Your task to perform on an android device: Go to battery settings Image 0: 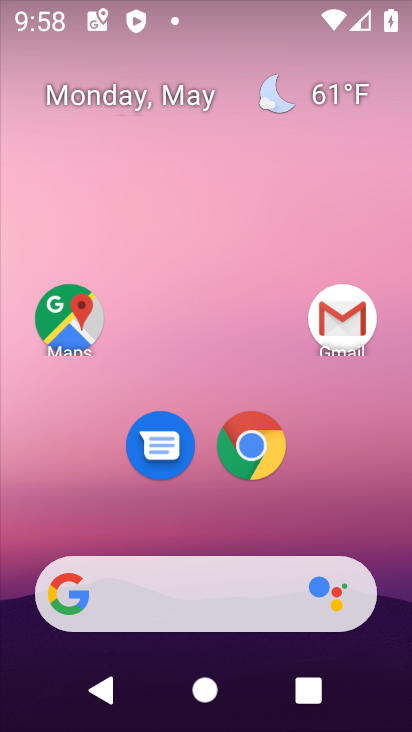
Step 0: drag from (392, 535) to (378, 185)
Your task to perform on an android device: Go to battery settings Image 1: 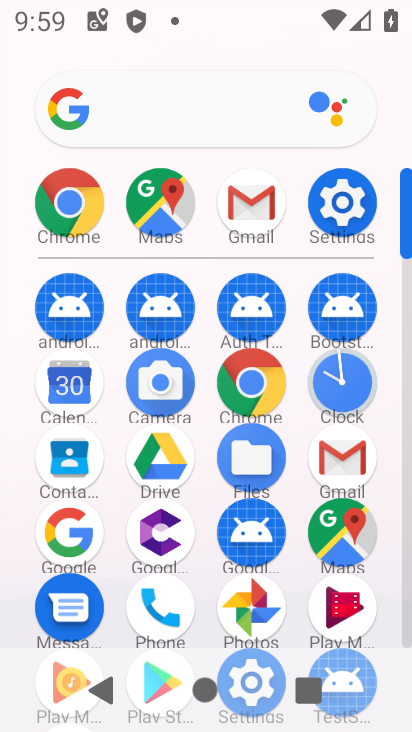
Step 1: click (334, 223)
Your task to perform on an android device: Go to battery settings Image 2: 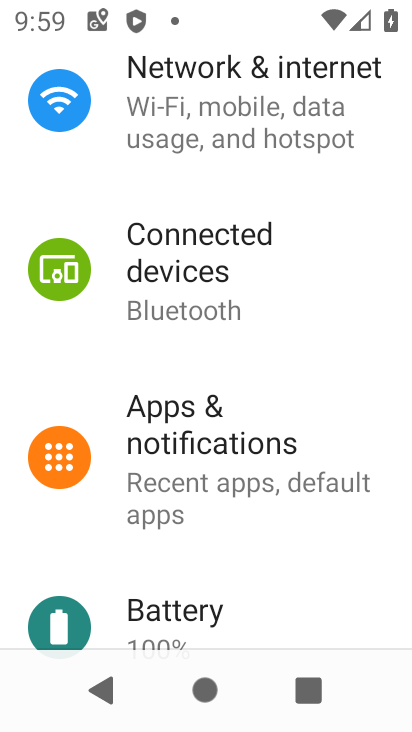
Step 2: drag from (350, 192) to (349, 331)
Your task to perform on an android device: Go to battery settings Image 3: 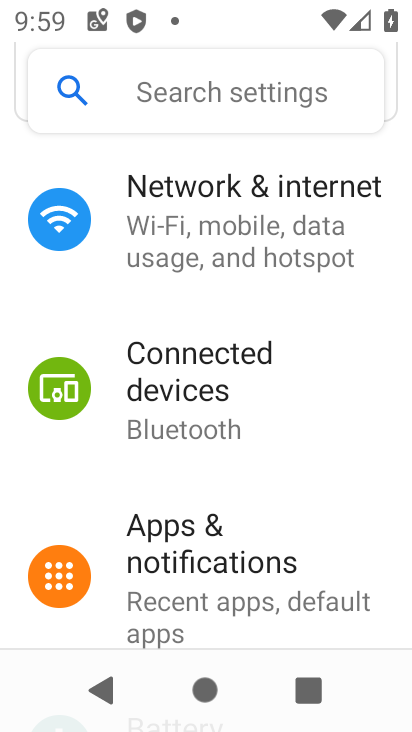
Step 3: drag from (370, 479) to (374, 343)
Your task to perform on an android device: Go to battery settings Image 4: 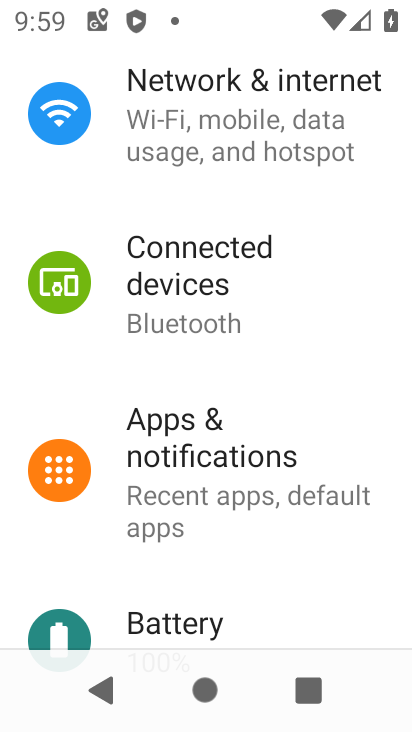
Step 4: drag from (363, 548) to (371, 410)
Your task to perform on an android device: Go to battery settings Image 5: 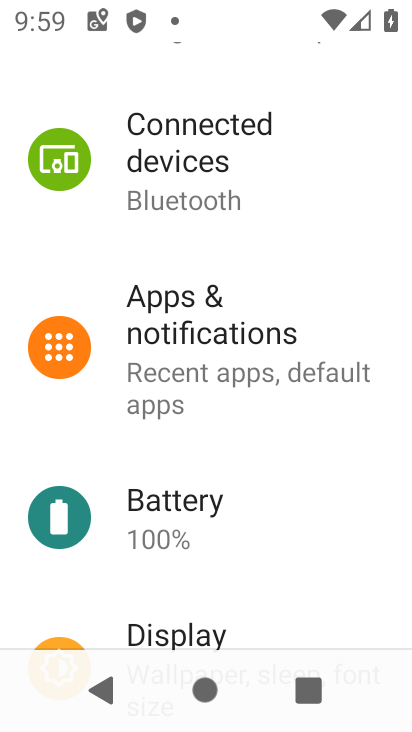
Step 5: drag from (367, 555) to (362, 418)
Your task to perform on an android device: Go to battery settings Image 6: 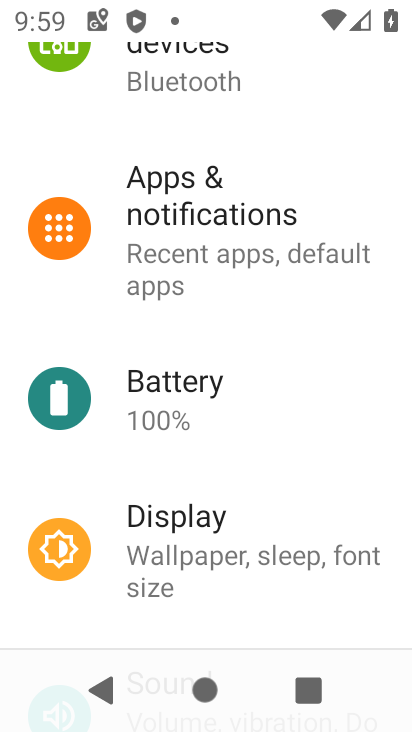
Step 6: drag from (344, 585) to (342, 338)
Your task to perform on an android device: Go to battery settings Image 7: 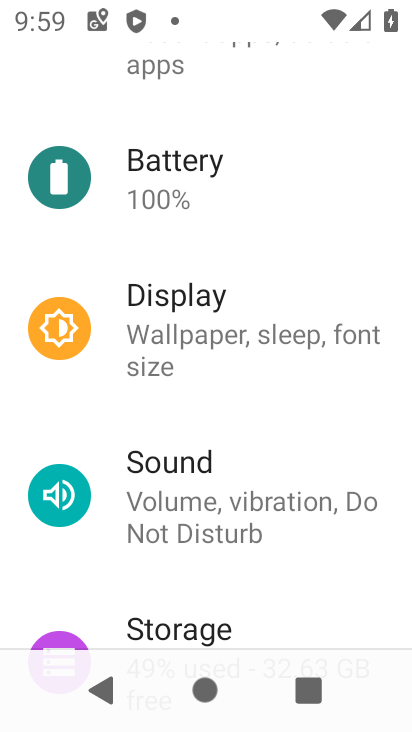
Step 7: drag from (346, 564) to (348, 433)
Your task to perform on an android device: Go to battery settings Image 8: 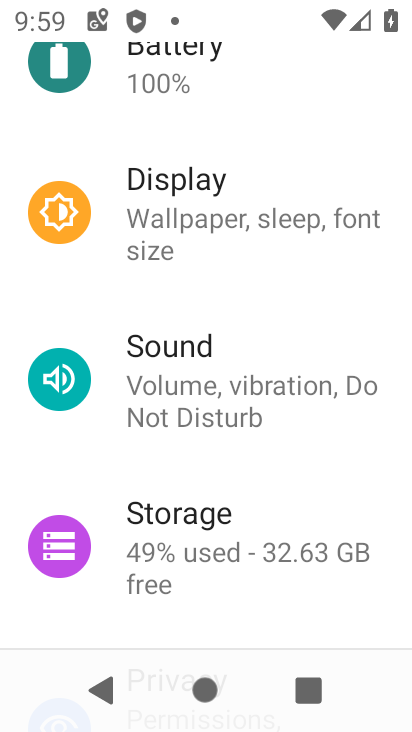
Step 8: drag from (360, 179) to (345, 420)
Your task to perform on an android device: Go to battery settings Image 9: 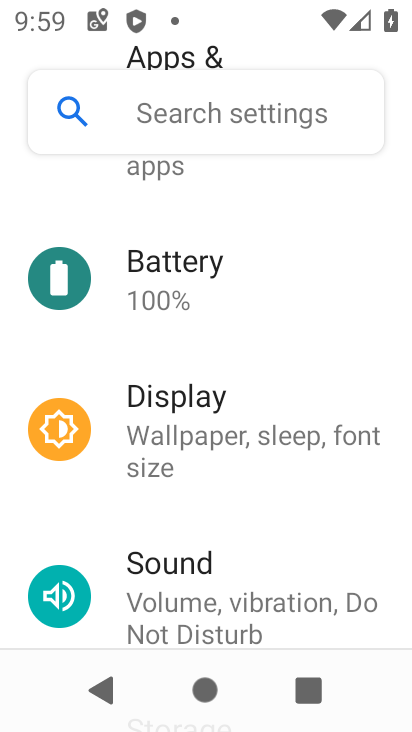
Step 9: click (221, 302)
Your task to perform on an android device: Go to battery settings Image 10: 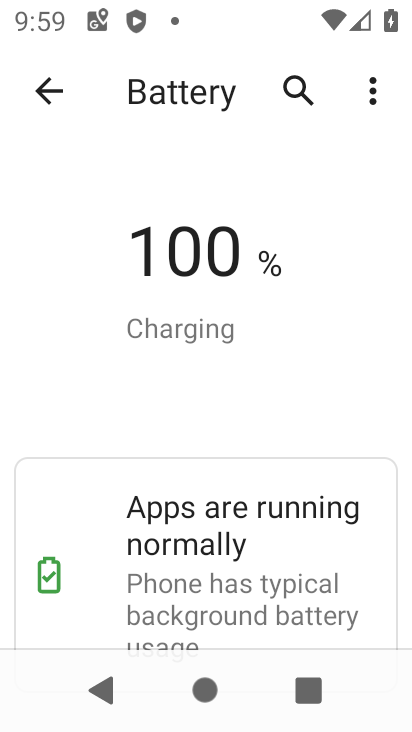
Step 10: task complete